Your task to perform on an android device: turn on priority inbox in the gmail app Image 0: 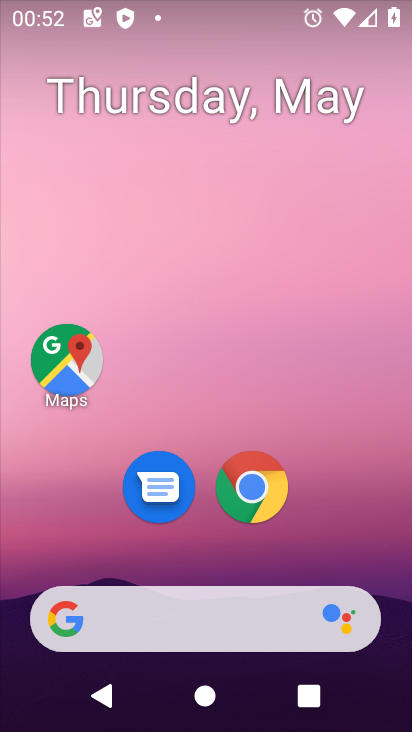
Step 0: drag from (368, 562) to (305, 30)
Your task to perform on an android device: turn on priority inbox in the gmail app Image 1: 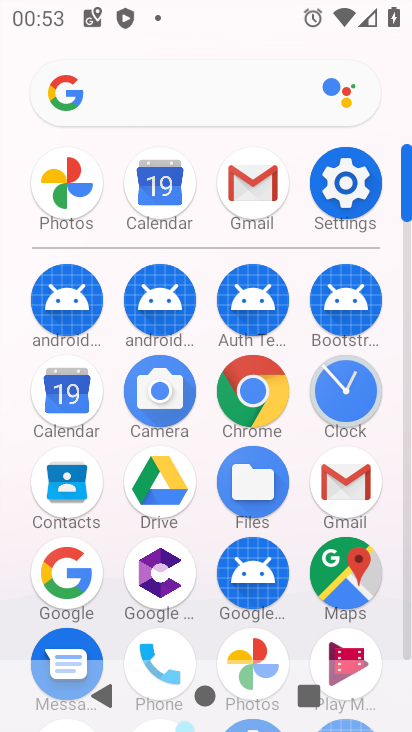
Step 1: click (247, 208)
Your task to perform on an android device: turn on priority inbox in the gmail app Image 2: 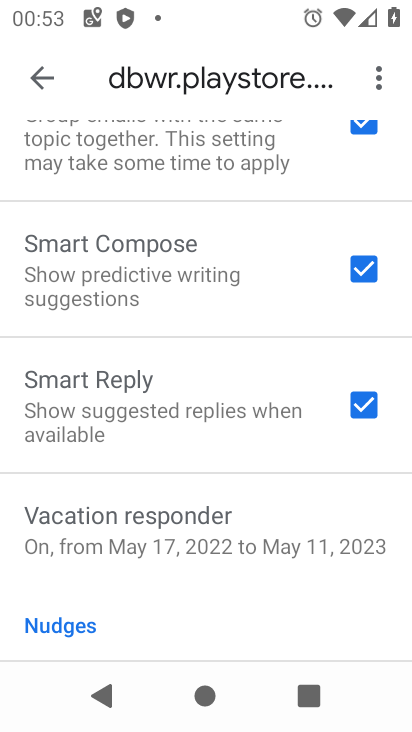
Step 2: drag from (144, 305) to (174, 642)
Your task to perform on an android device: turn on priority inbox in the gmail app Image 3: 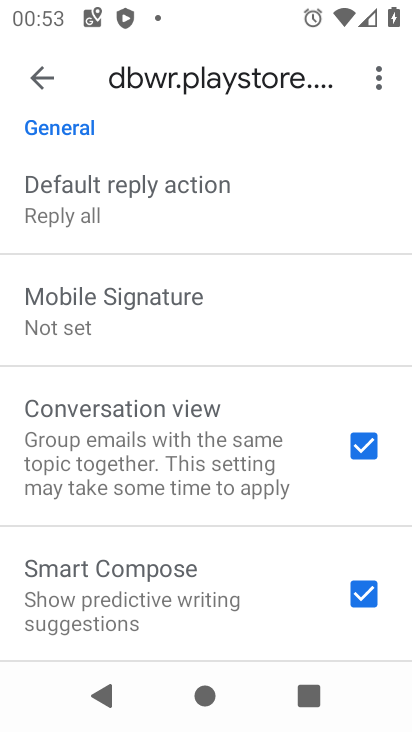
Step 3: drag from (132, 274) to (142, 451)
Your task to perform on an android device: turn on priority inbox in the gmail app Image 4: 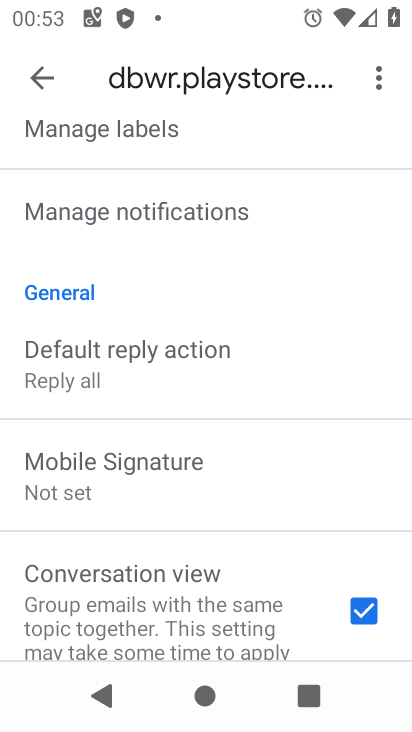
Step 4: drag from (160, 298) to (180, 554)
Your task to perform on an android device: turn on priority inbox in the gmail app Image 5: 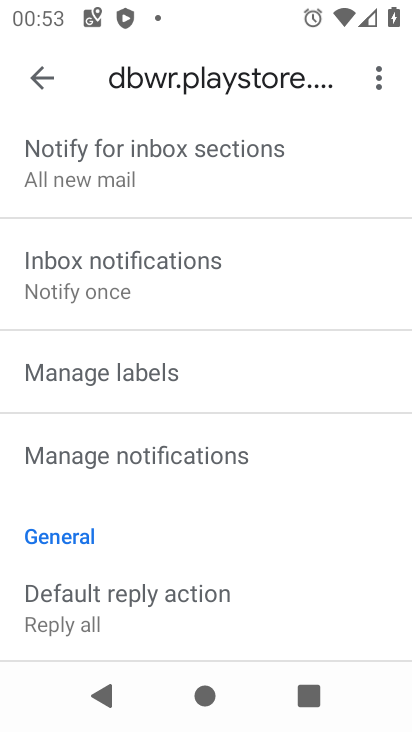
Step 5: drag from (108, 261) to (147, 558)
Your task to perform on an android device: turn on priority inbox in the gmail app Image 6: 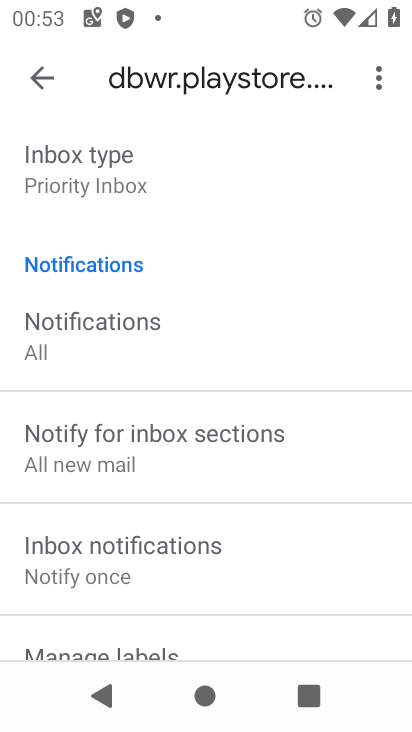
Step 6: click (88, 183)
Your task to perform on an android device: turn on priority inbox in the gmail app Image 7: 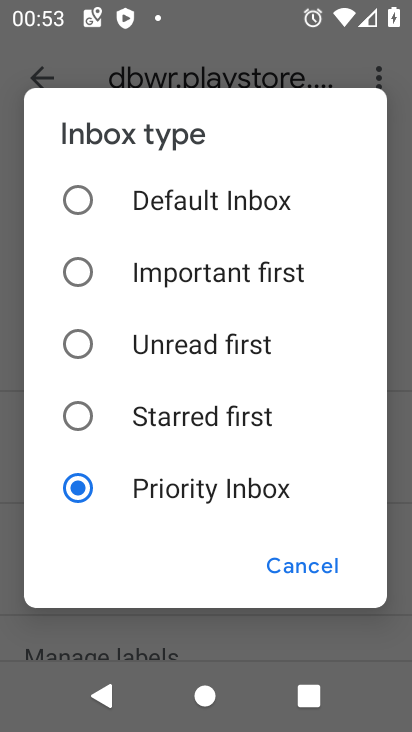
Step 7: task complete